Your task to perform on an android device: turn on priority inbox in the gmail app Image 0: 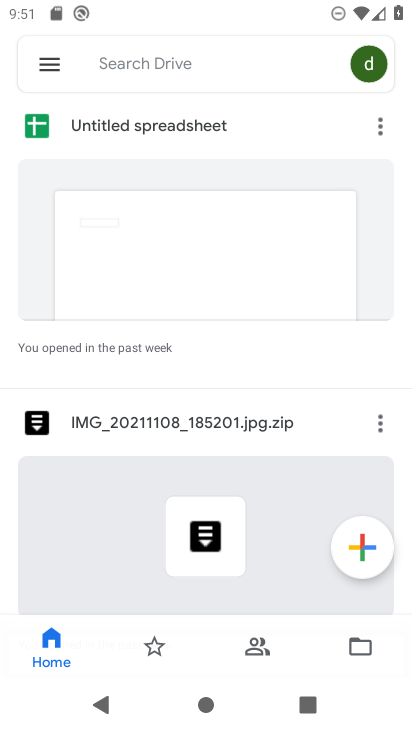
Step 0: press back button
Your task to perform on an android device: turn on priority inbox in the gmail app Image 1: 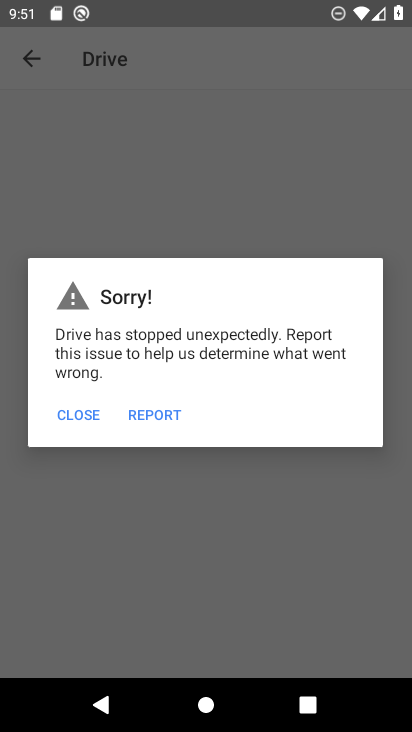
Step 1: press home button
Your task to perform on an android device: turn on priority inbox in the gmail app Image 2: 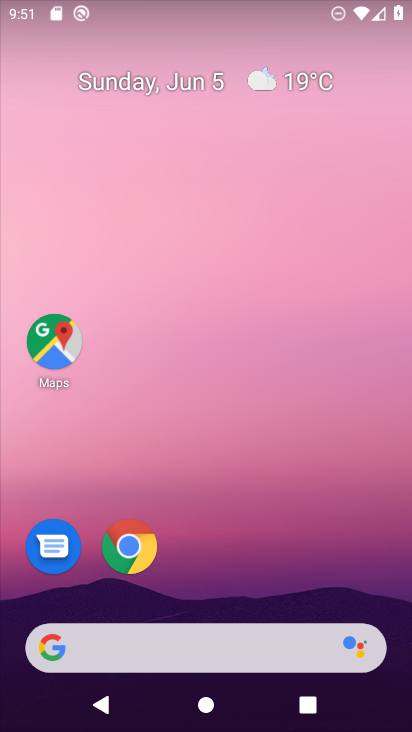
Step 2: drag from (197, 607) to (72, 73)
Your task to perform on an android device: turn on priority inbox in the gmail app Image 3: 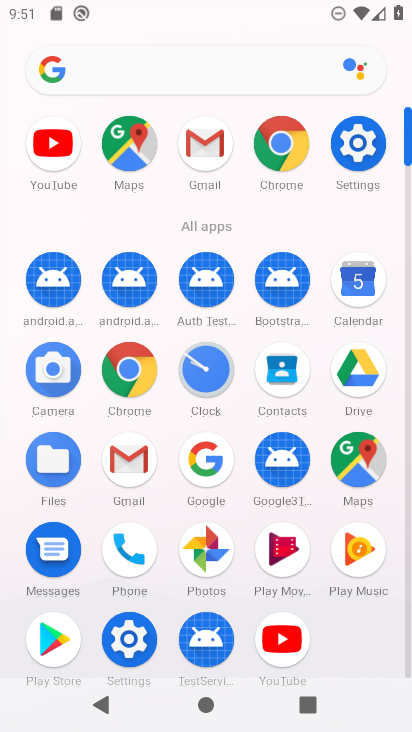
Step 3: click (134, 453)
Your task to perform on an android device: turn on priority inbox in the gmail app Image 4: 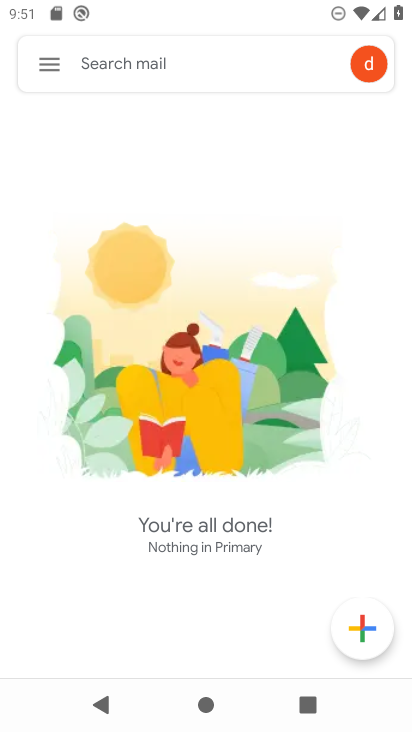
Step 4: click (38, 68)
Your task to perform on an android device: turn on priority inbox in the gmail app Image 5: 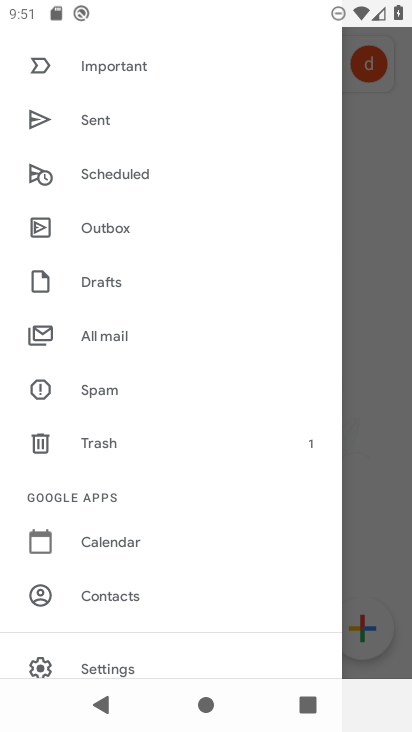
Step 5: click (103, 661)
Your task to perform on an android device: turn on priority inbox in the gmail app Image 6: 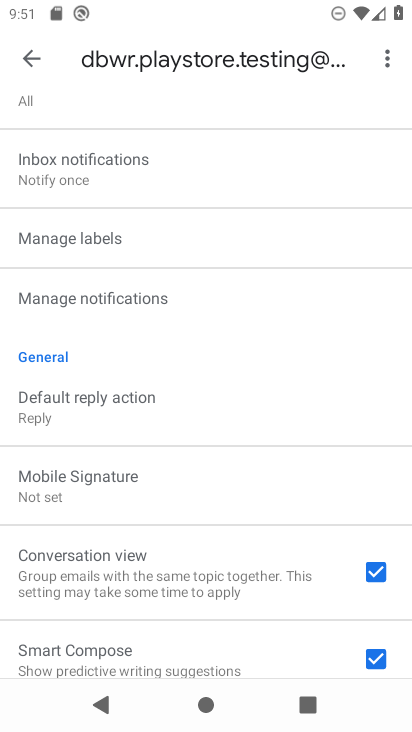
Step 6: drag from (103, 574) to (71, 132)
Your task to perform on an android device: turn on priority inbox in the gmail app Image 7: 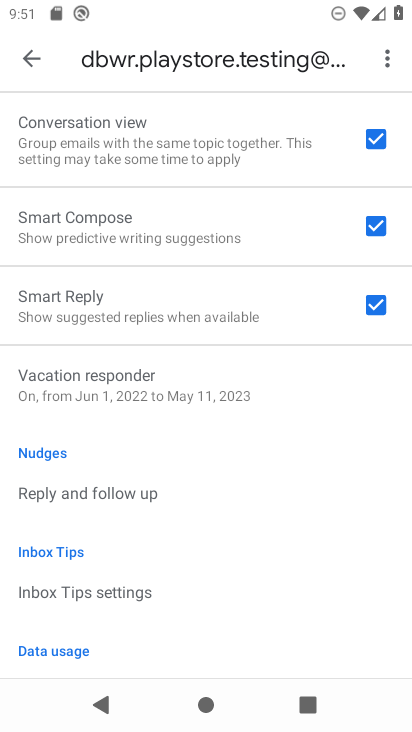
Step 7: drag from (138, 464) to (99, 189)
Your task to perform on an android device: turn on priority inbox in the gmail app Image 8: 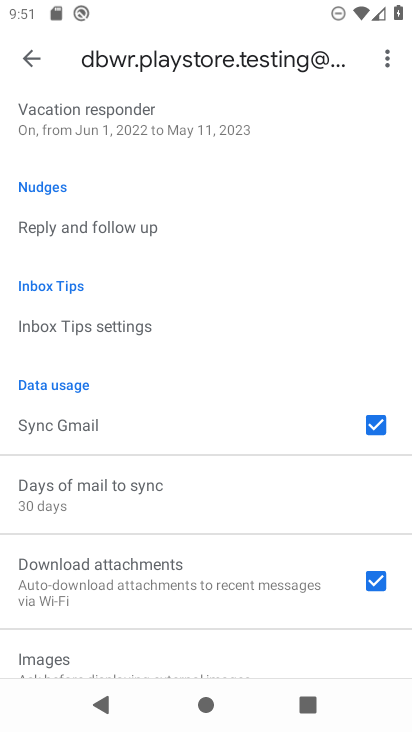
Step 8: drag from (97, 674) to (35, 126)
Your task to perform on an android device: turn on priority inbox in the gmail app Image 9: 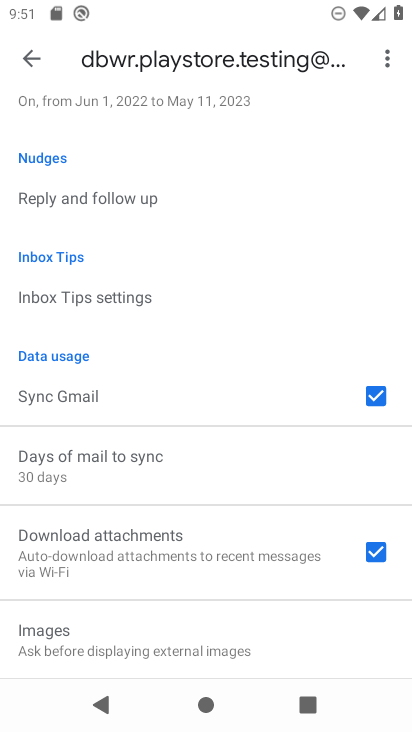
Step 9: drag from (79, 190) to (51, 586)
Your task to perform on an android device: turn on priority inbox in the gmail app Image 10: 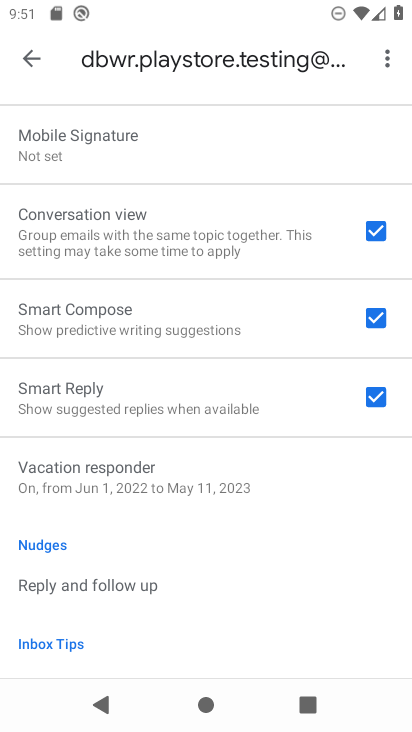
Step 10: drag from (138, 275) to (136, 643)
Your task to perform on an android device: turn on priority inbox in the gmail app Image 11: 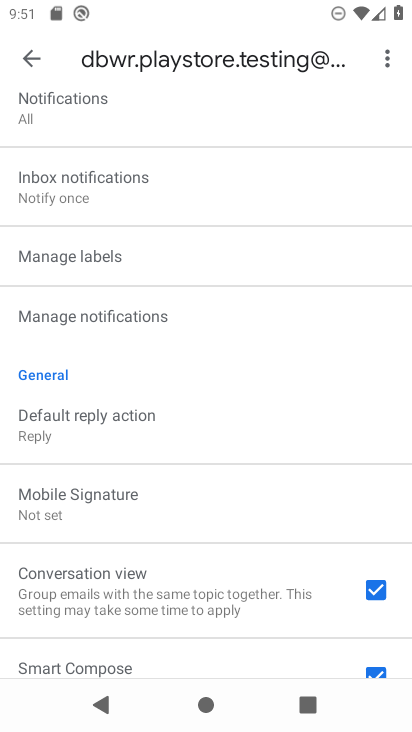
Step 11: drag from (109, 208) to (106, 561)
Your task to perform on an android device: turn on priority inbox in the gmail app Image 12: 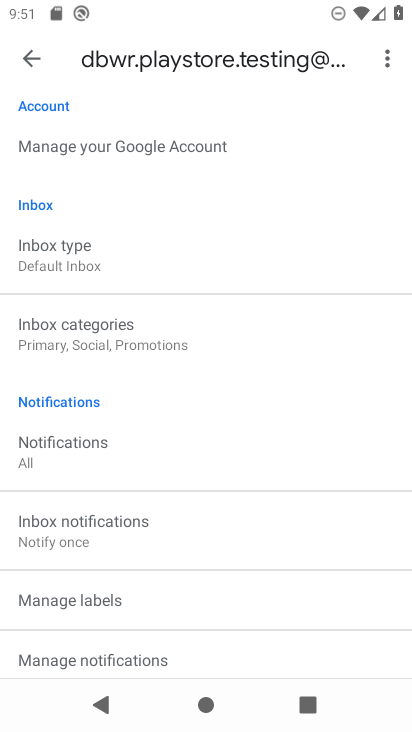
Step 12: click (85, 254)
Your task to perform on an android device: turn on priority inbox in the gmail app Image 13: 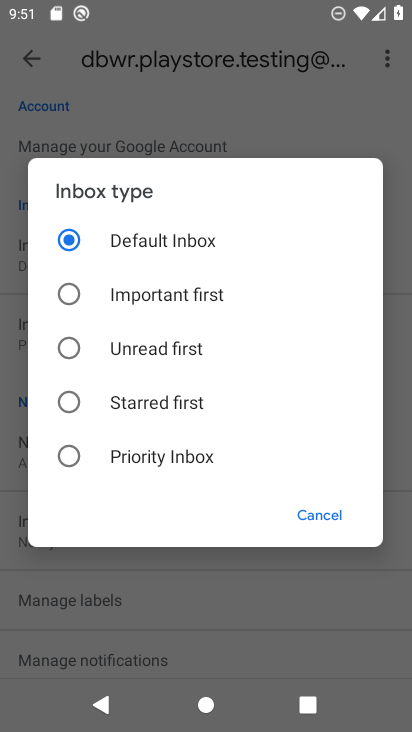
Step 13: click (102, 453)
Your task to perform on an android device: turn on priority inbox in the gmail app Image 14: 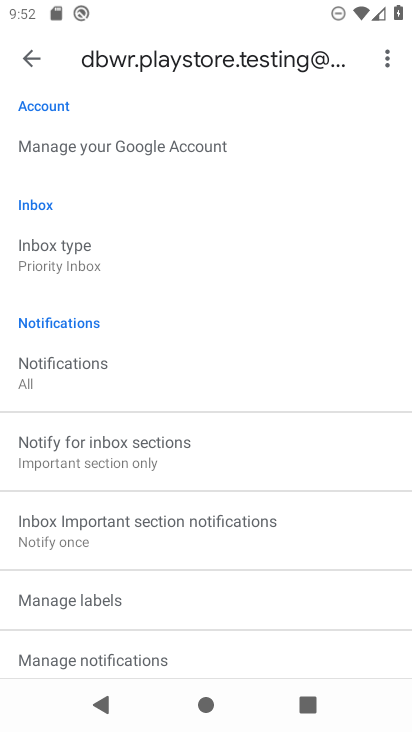
Step 14: task complete